Your task to perform on an android device: What's on my calendar tomorrow? Image 0: 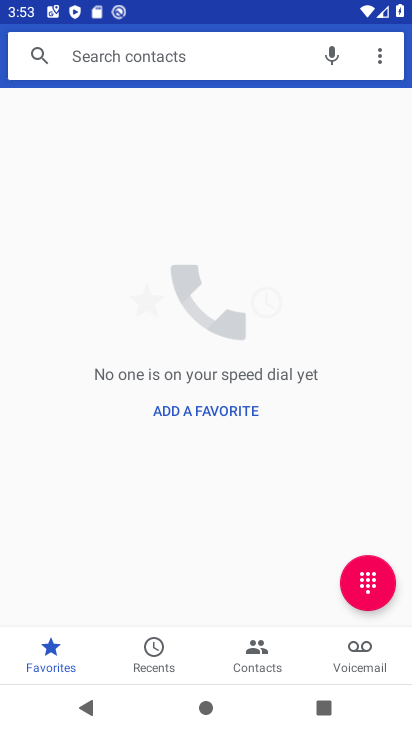
Step 0: press home button
Your task to perform on an android device: What's on my calendar tomorrow? Image 1: 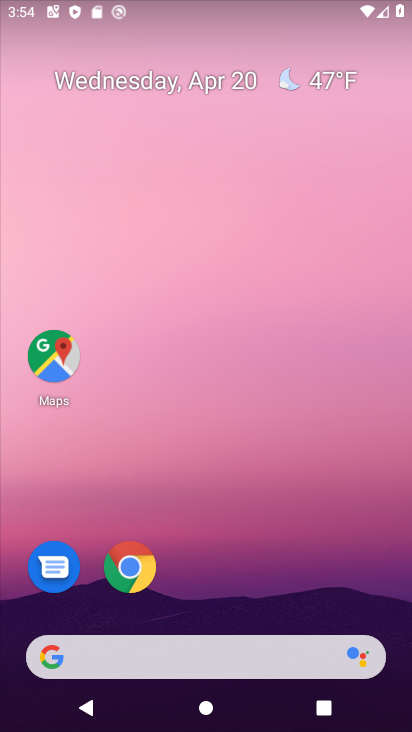
Step 1: click (134, 71)
Your task to perform on an android device: What's on my calendar tomorrow? Image 2: 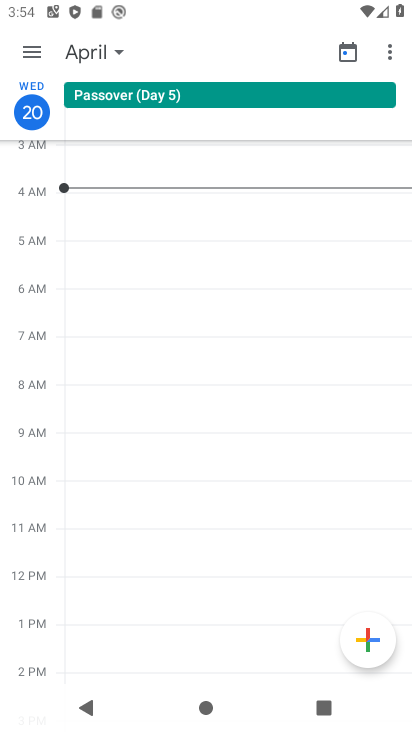
Step 2: click (96, 63)
Your task to perform on an android device: What's on my calendar tomorrow? Image 3: 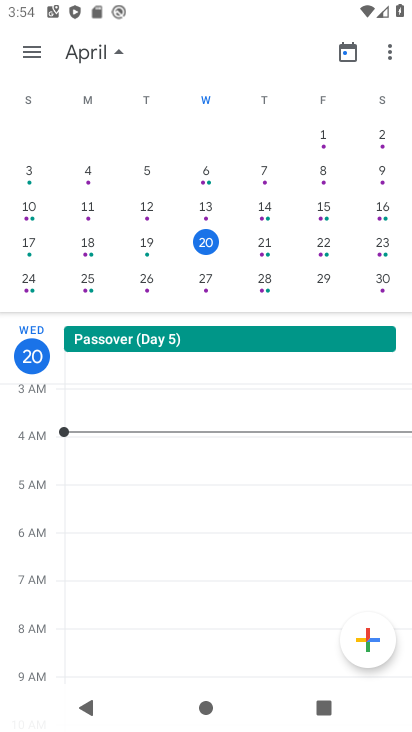
Step 3: click (256, 244)
Your task to perform on an android device: What's on my calendar tomorrow? Image 4: 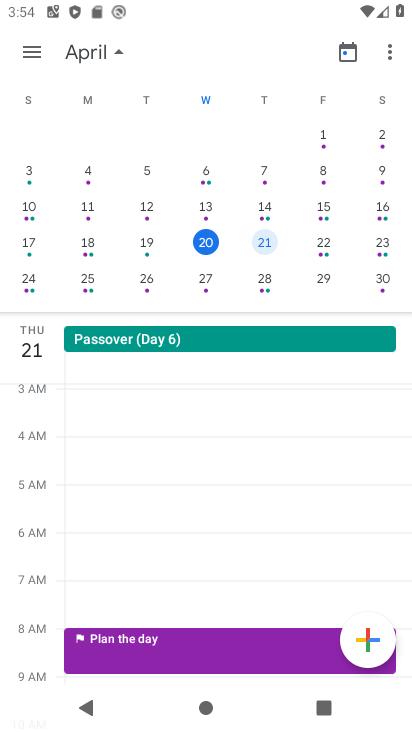
Step 4: task complete